Your task to perform on an android device: check battery use Image 0: 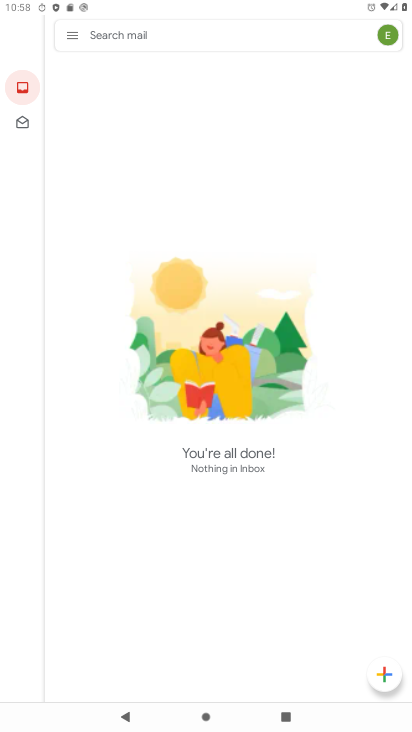
Step 0: press home button
Your task to perform on an android device: check battery use Image 1: 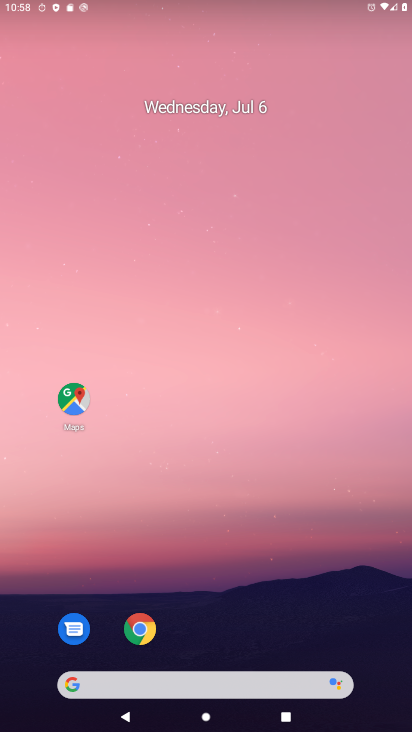
Step 1: drag from (256, 485) to (273, 114)
Your task to perform on an android device: check battery use Image 2: 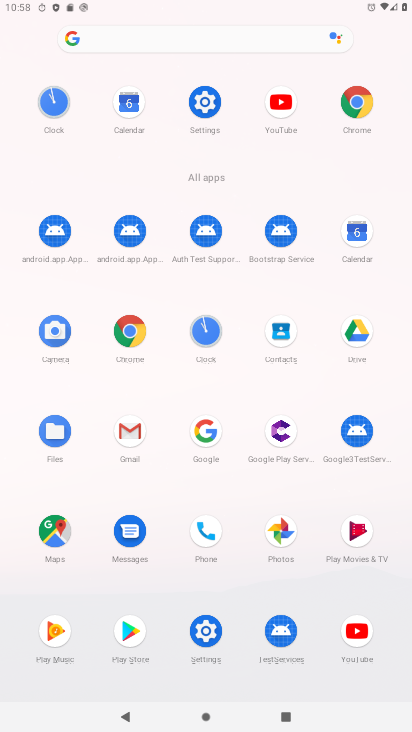
Step 2: click (206, 97)
Your task to perform on an android device: check battery use Image 3: 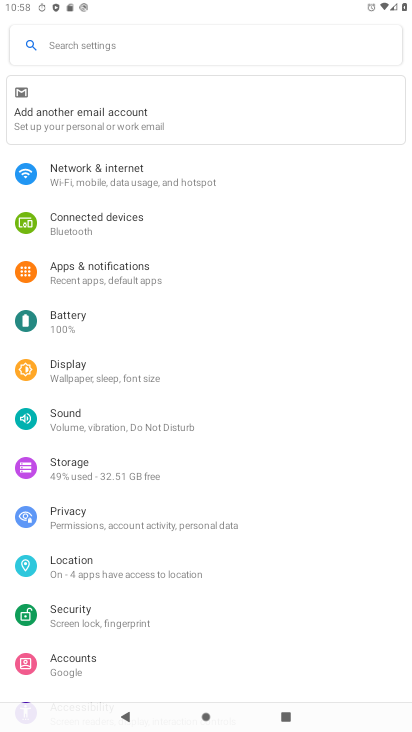
Step 3: click (114, 321)
Your task to perform on an android device: check battery use Image 4: 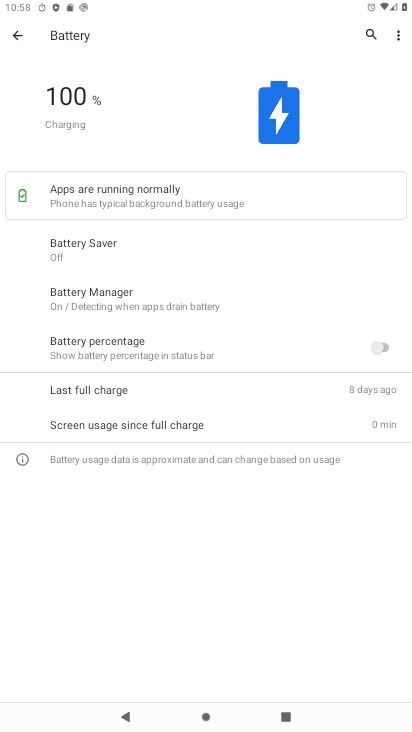
Step 4: click (395, 35)
Your task to perform on an android device: check battery use Image 5: 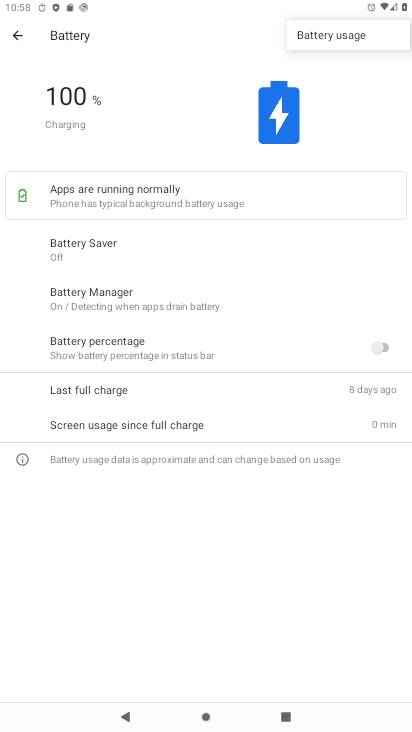
Step 5: click (326, 35)
Your task to perform on an android device: check battery use Image 6: 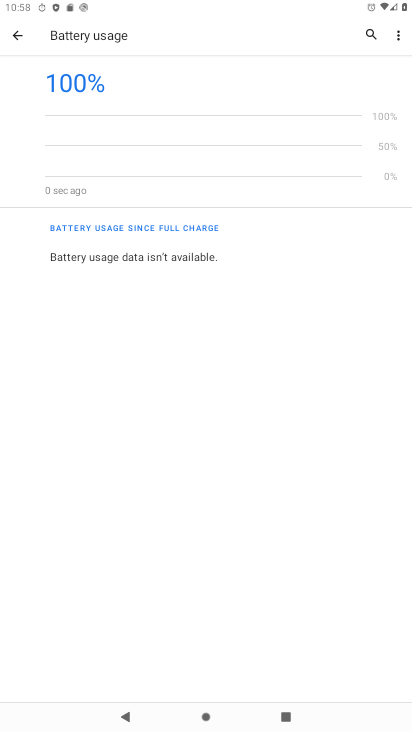
Step 6: task complete